Your task to perform on an android device: Open internet settings Image 0: 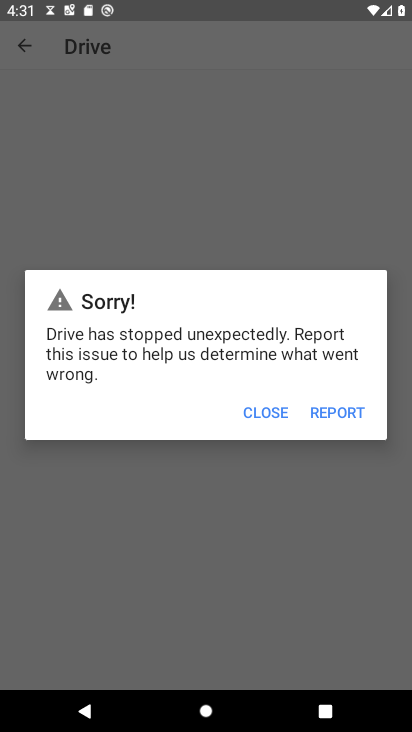
Step 0: press home button
Your task to perform on an android device: Open internet settings Image 1: 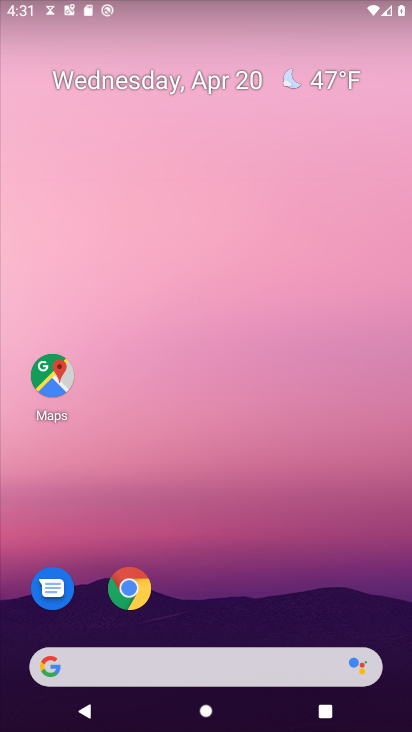
Step 1: drag from (232, 592) to (296, 123)
Your task to perform on an android device: Open internet settings Image 2: 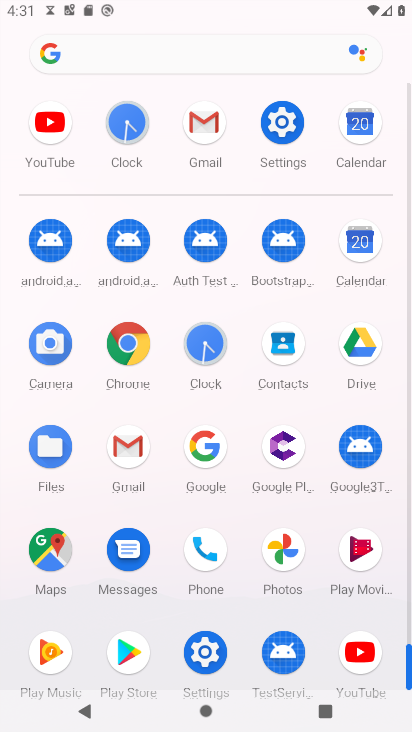
Step 2: click (279, 125)
Your task to perform on an android device: Open internet settings Image 3: 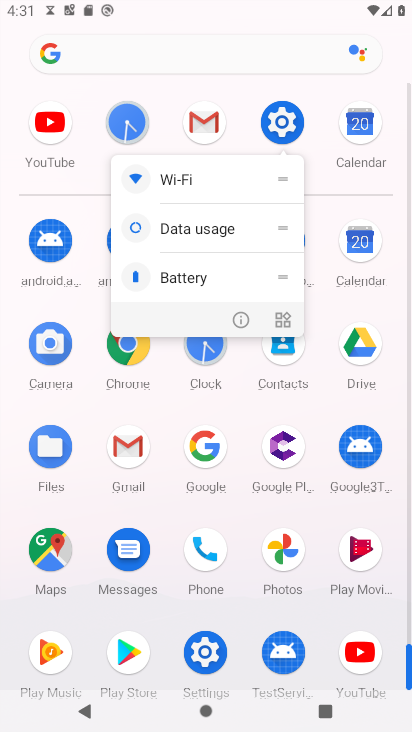
Step 3: click (276, 129)
Your task to perform on an android device: Open internet settings Image 4: 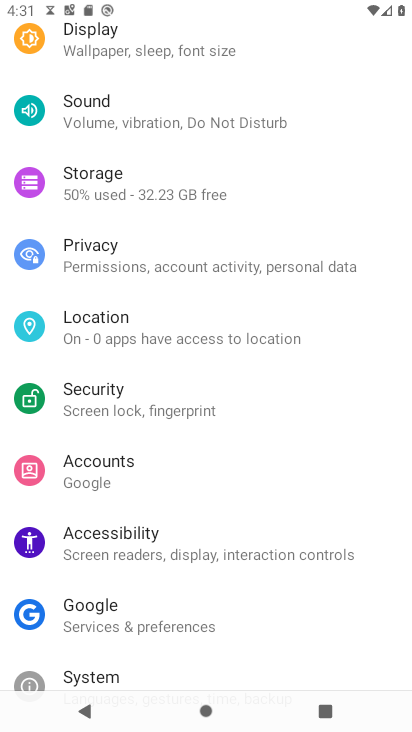
Step 4: drag from (157, 226) to (186, 409)
Your task to perform on an android device: Open internet settings Image 5: 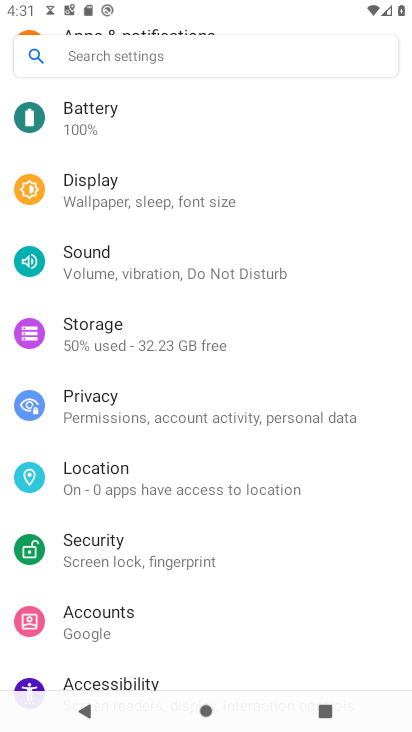
Step 5: drag from (224, 306) to (245, 445)
Your task to perform on an android device: Open internet settings Image 6: 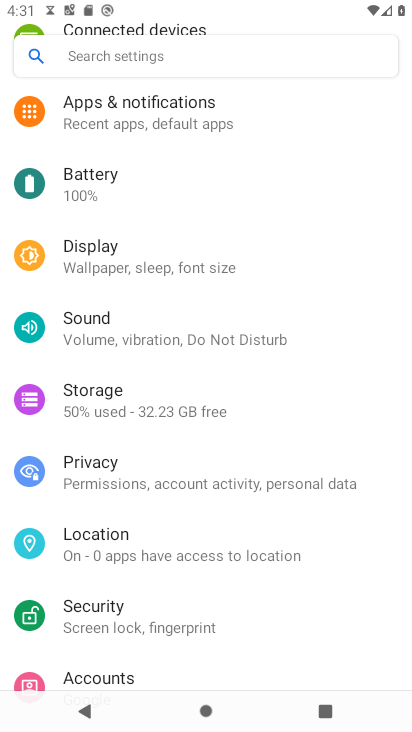
Step 6: drag from (232, 284) to (234, 412)
Your task to perform on an android device: Open internet settings Image 7: 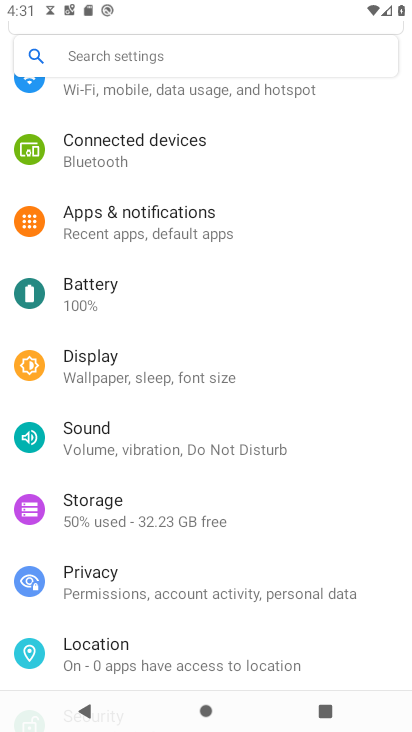
Step 7: drag from (228, 293) to (281, 450)
Your task to perform on an android device: Open internet settings Image 8: 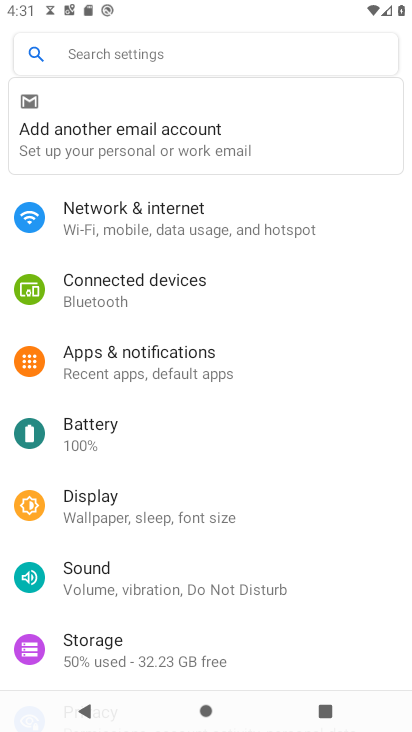
Step 8: click (255, 228)
Your task to perform on an android device: Open internet settings Image 9: 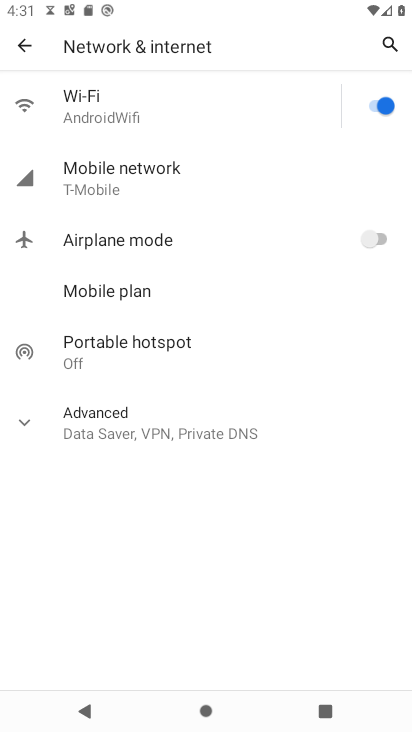
Step 9: click (260, 196)
Your task to perform on an android device: Open internet settings Image 10: 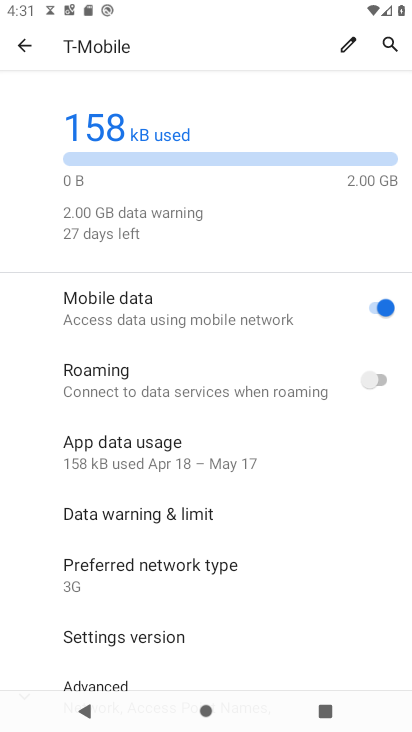
Step 10: task complete